Your task to perform on an android device: change your default location settings in chrome Image 0: 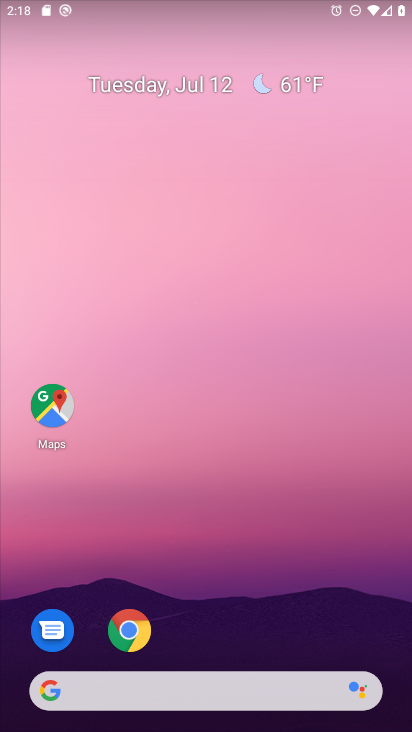
Step 0: click (131, 626)
Your task to perform on an android device: change your default location settings in chrome Image 1: 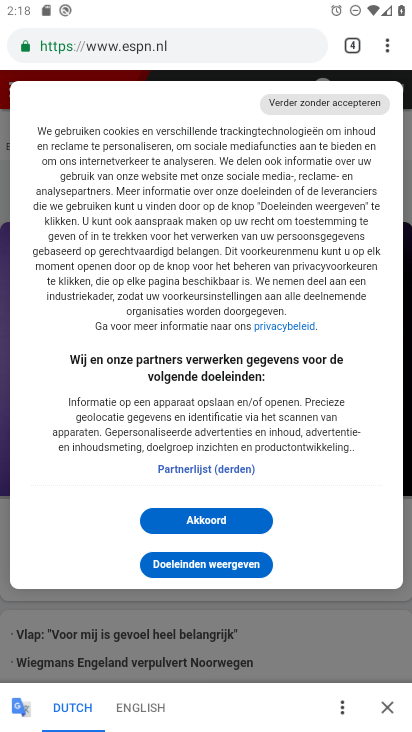
Step 1: click (388, 58)
Your task to perform on an android device: change your default location settings in chrome Image 2: 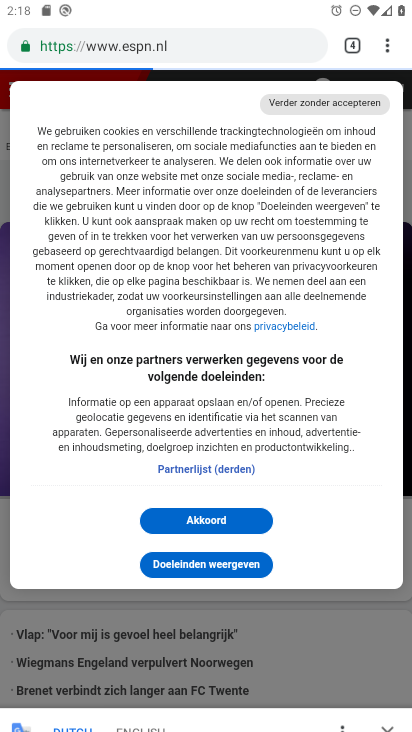
Step 2: click (388, 58)
Your task to perform on an android device: change your default location settings in chrome Image 3: 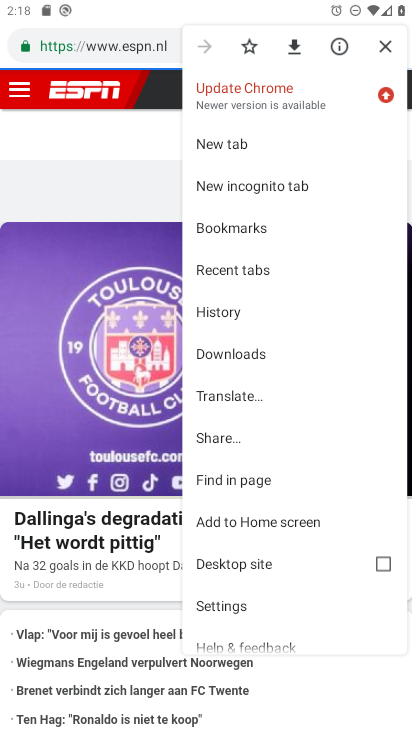
Step 3: click (231, 603)
Your task to perform on an android device: change your default location settings in chrome Image 4: 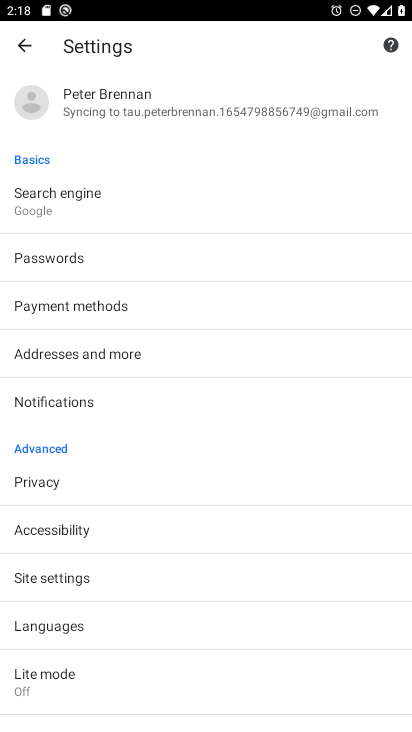
Step 4: click (67, 580)
Your task to perform on an android device: change your default location settings in chrome Image 5: 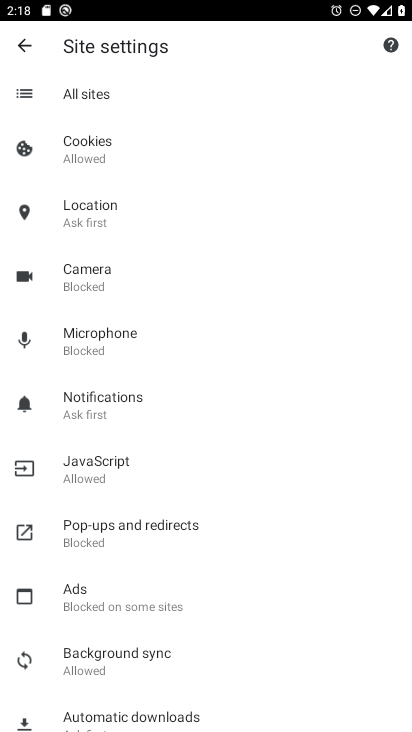
Step 5: click (115, 211)
Your task to perform on an android device: change your default location settings in chrome Image 6: 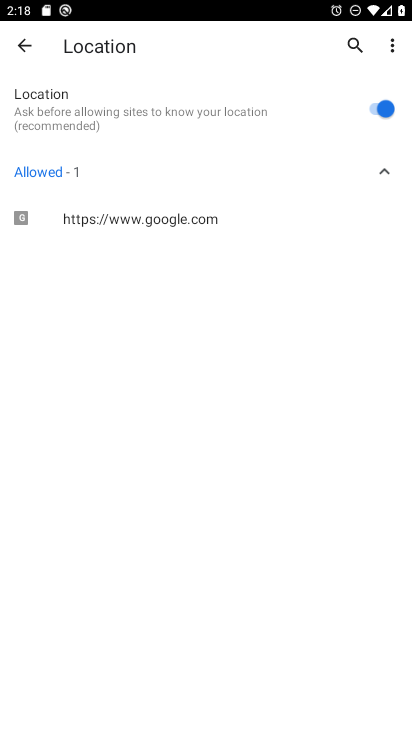
Step 6: click (360, 111)
Your task to perform on an android device: change your default location settings in chrome Image 7: 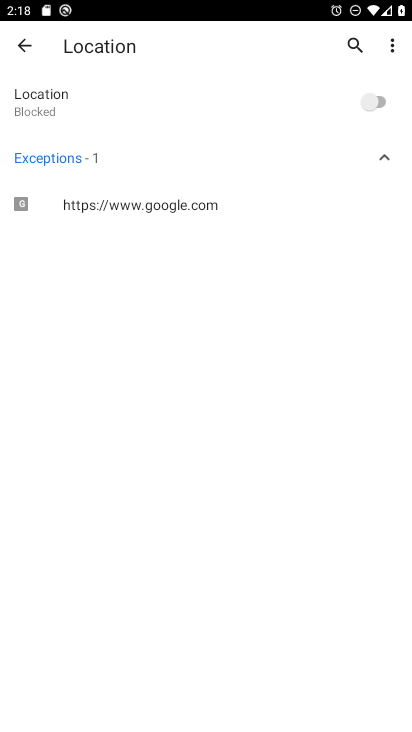
Step 7: task complete